Your task to perform on an android device: Open wifi settings Image 0: 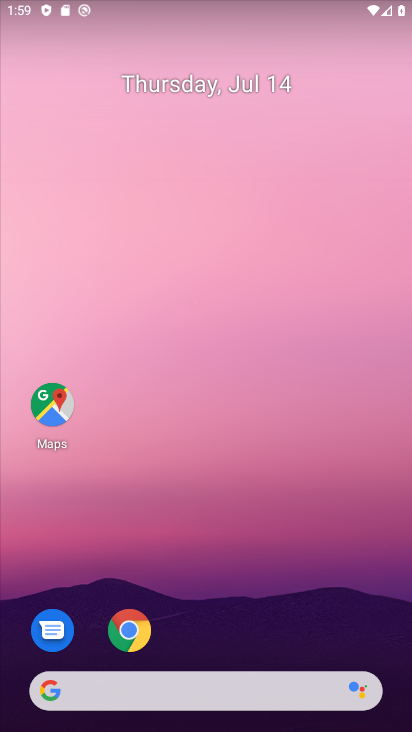
Step 0: drag from (224, 531) to (282, 231)
Your task to perform on an android device: Open wifi settings Image 1: 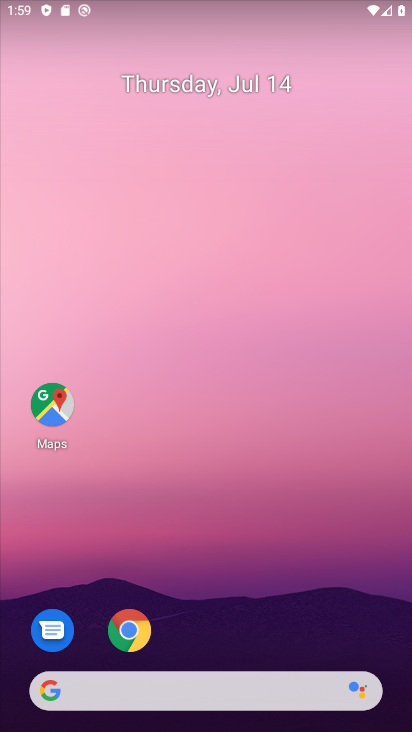
Step 1: drag from (168, 649) to (243, 222)
Your task to perform on an android device: Open wifi settings Image 2: 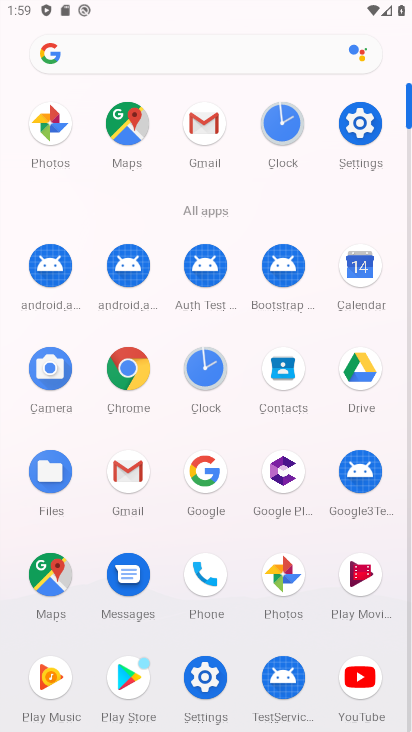
Step 2: click (197, 675)
Your task to perform on an android device: Open wifi settings Image 3: 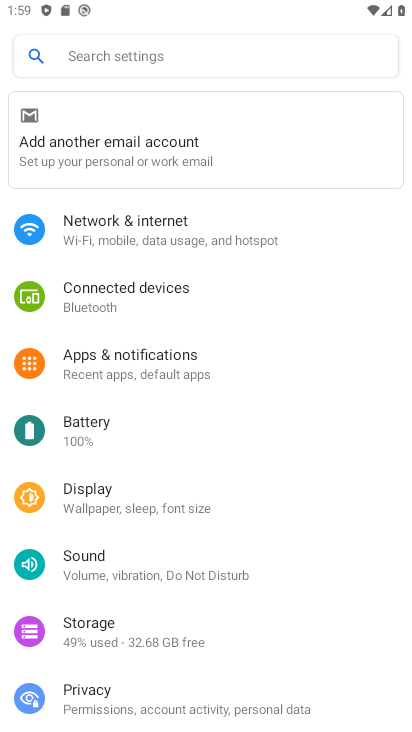
Step 3: click (187, 237)
Your task to perform on an android device: Open wifi settings Image 4: 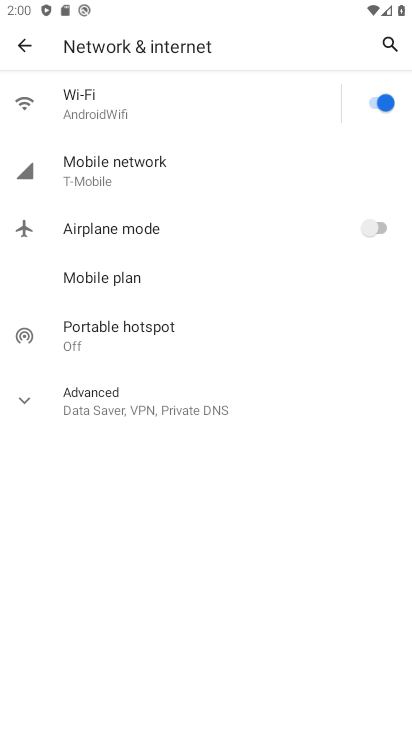
Step 4: click (179, 107)
Your task to perform on an android device: Open wifi settings Image 5: 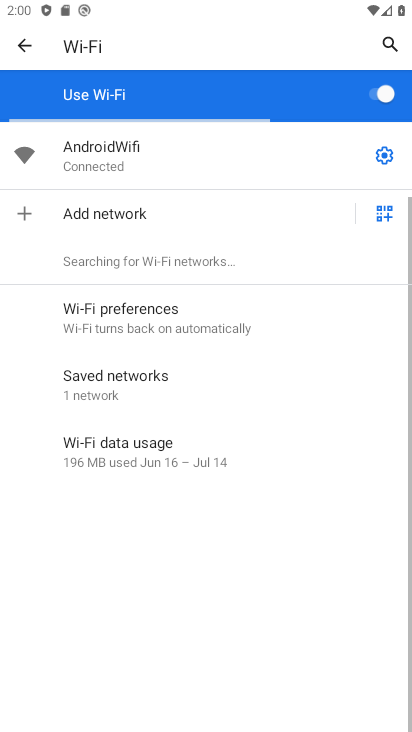
Step 5: task complete